Your task to perform on an android device: Open Google Chrome Image 0: 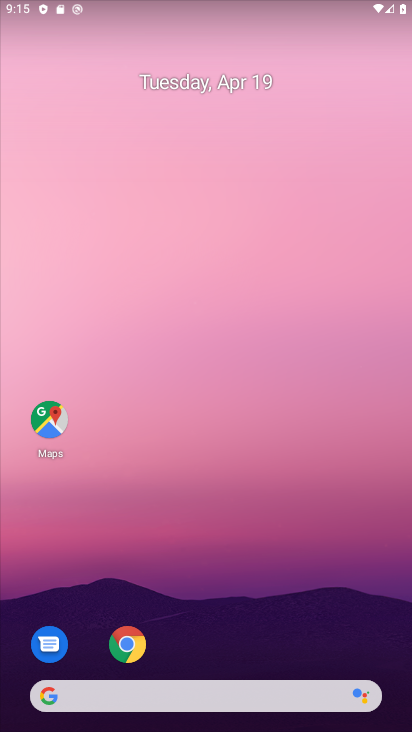
Step 0: click (124, 636)
Your task to perform on an android device: Open Google Chrome Image 1: 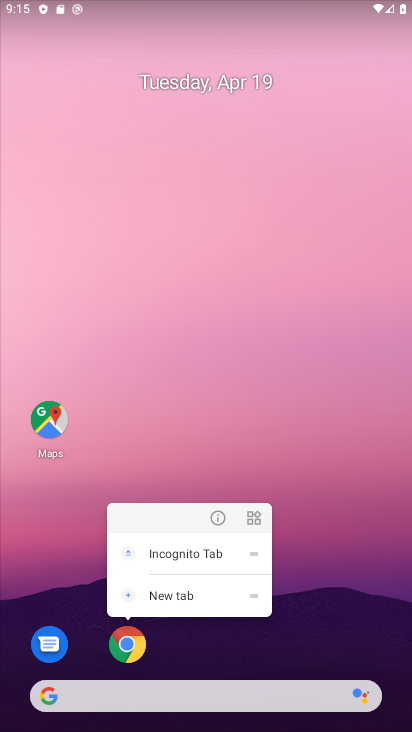
Step 1: click (124, 636)
Your task to perform on an android device: Open Google Chrome Image 2: 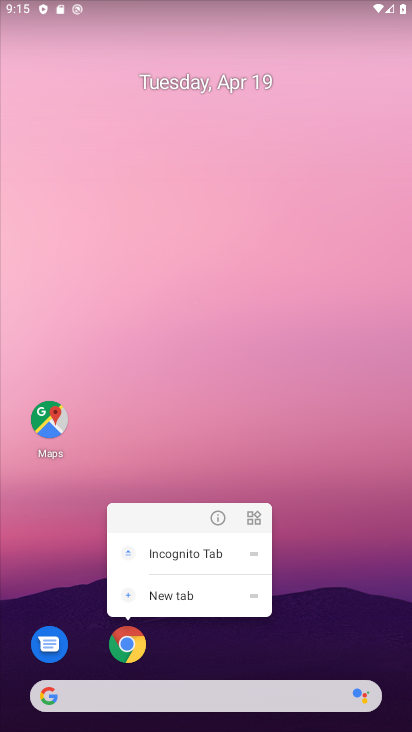
Step 2: click (124, 636)
Your task to perform on an android device: Open Google Chrome Image 3: 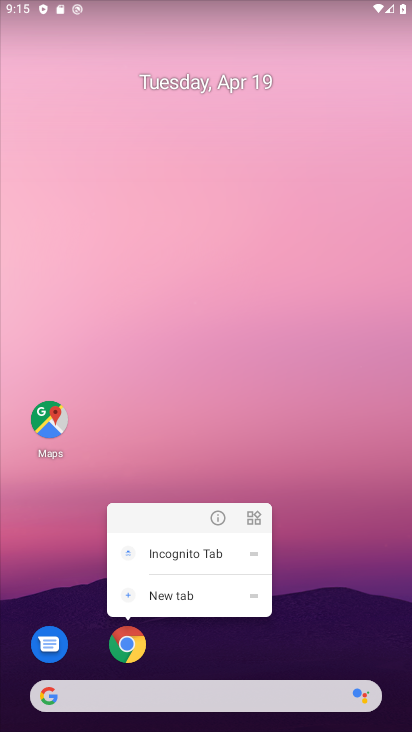
Step 3: click (119, 638)
Your task to perform on an android device: Open Google Chrome Image 4: 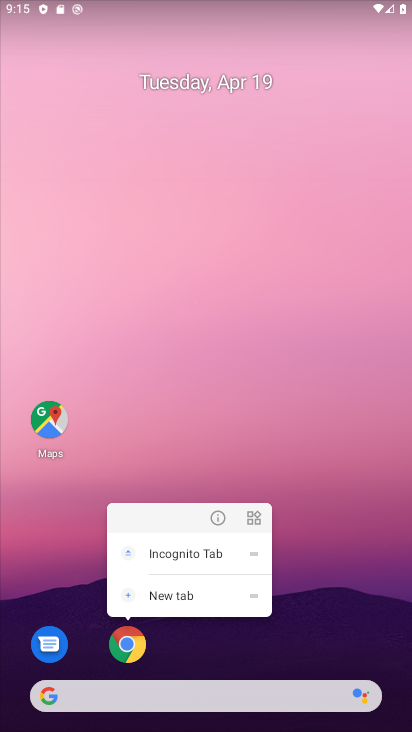
Step 4: click (252, 645)
Your task to perform on an android device: Open Google Chrome Image 5: 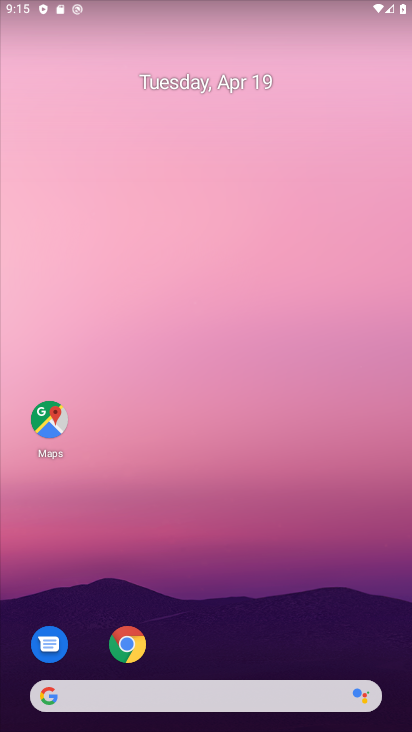
Step 5: click (193, 645)
Your task to perform on an android device: Open Google Chrome Image 6: 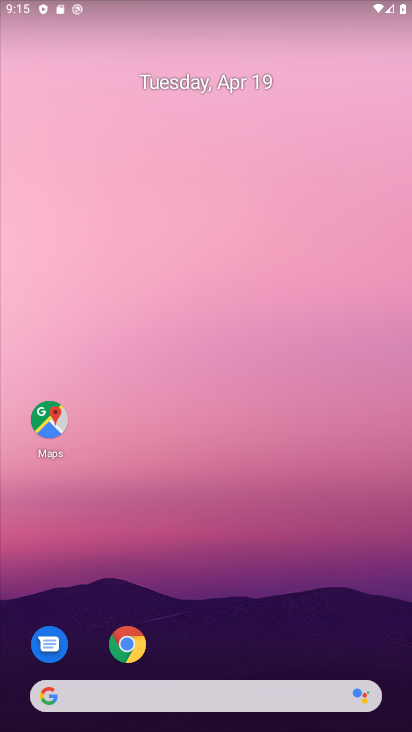
Step 6: click (131, 638)
Your task to perform on an android device: Open Google Chrome Image 7: 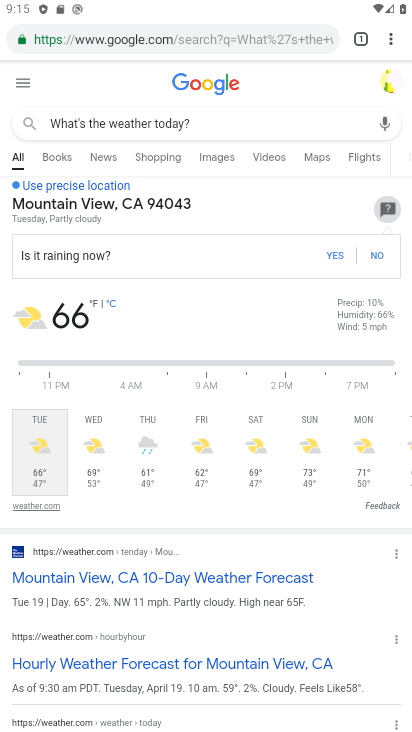
Step 7: task complete